Your task to perform on an android device: read, delete, or share a saved page in the chrome app Image 0: 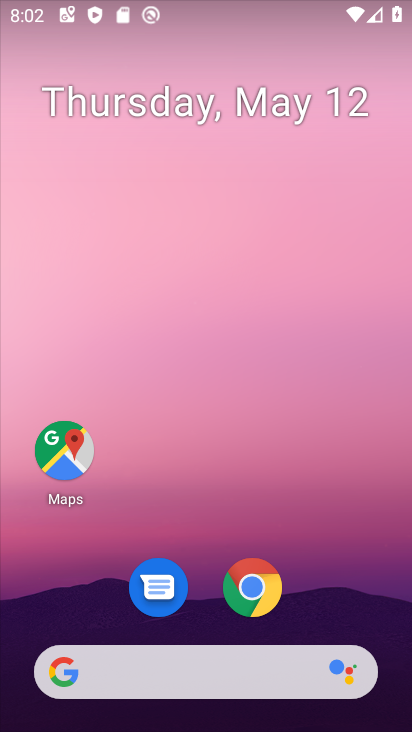
Step 0: drag from (301, 548) to (276, 180)
Your task to perform on an android device: read, delete, or share a saved page in the chrome app Image 1: 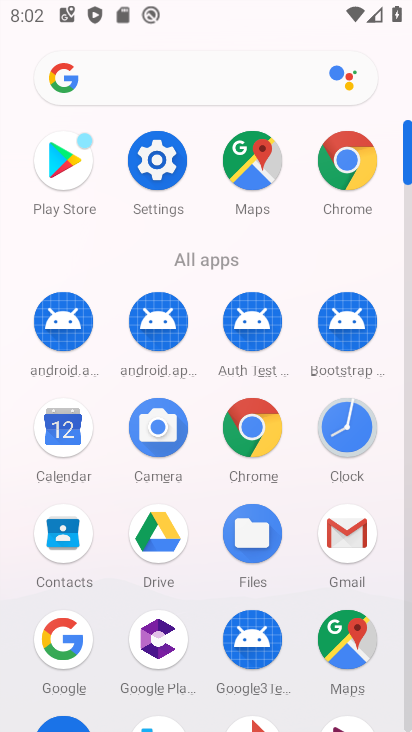
Step 1: click (256, 416)
Your task to perform on an android device: read, delete, or share a saved page in the chrome app Image 2: 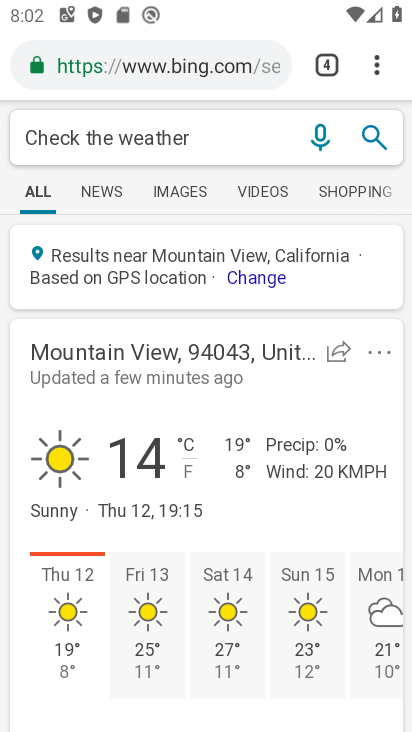
Step 2: click (384, 67)
Your task to perform on an android device: read, delete, or share a saved page in the chrome app Image 3: 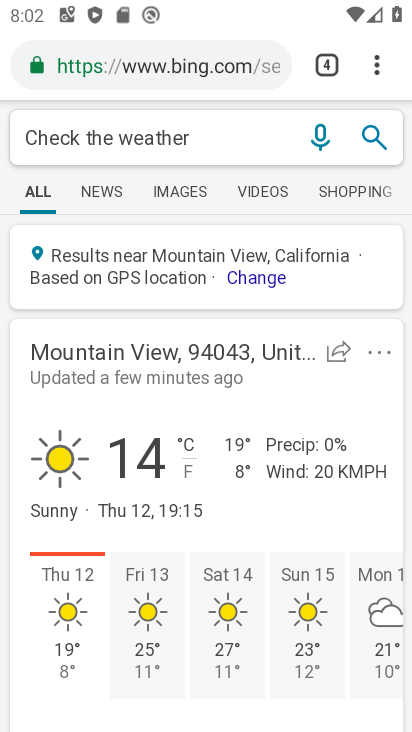
Step 3: click (363, 63)
Your task to perform on an android device: read, delete, or share a saved page in the chrome app Image 4: 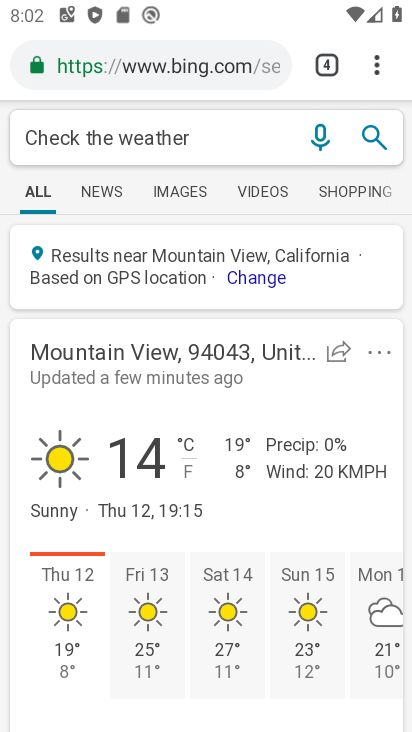
Step 4: click (372, 65)
Your task to perform on an android device: read, delete, or share a saved page in the chrome app Image 5: 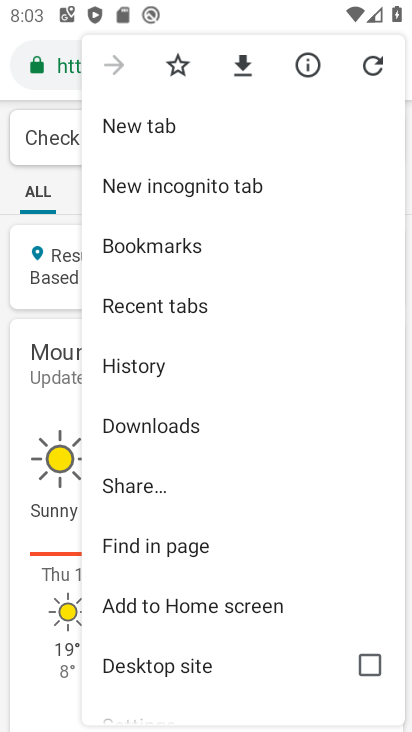
Step 5: click (183, 428)
Your task to perform on an android device: read, delete, or share a saved page in the chrome app Image 6: 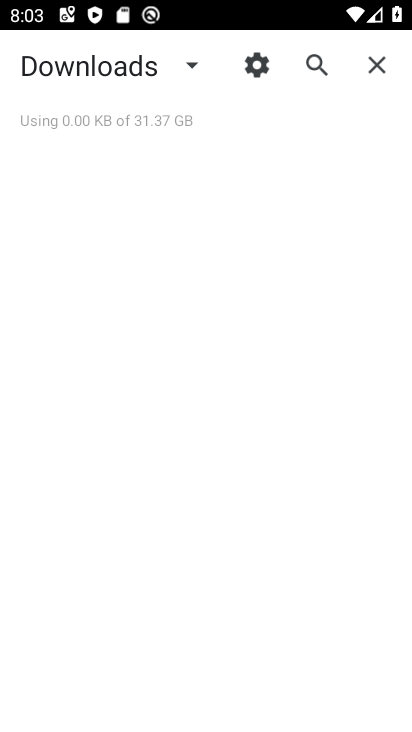
Step 6: click (187, 63)
Your task to perform on an android device: read, delete, or share a saved page in the chrome app Image 7: 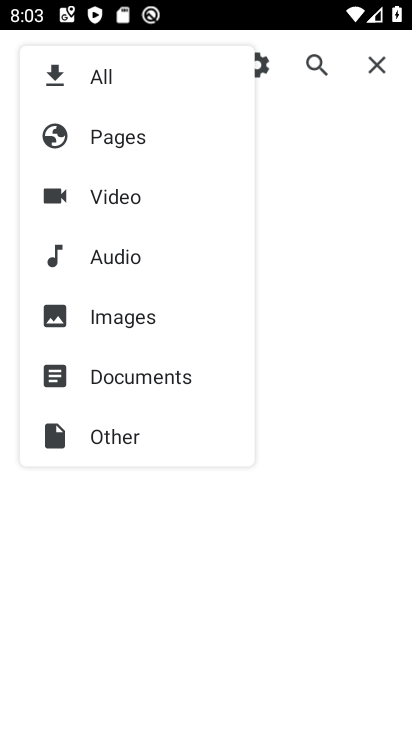
Step 7: click (113, 136)
Your task to perform on an android device: read, delete, or share a saved page in the chrome app Image 8: 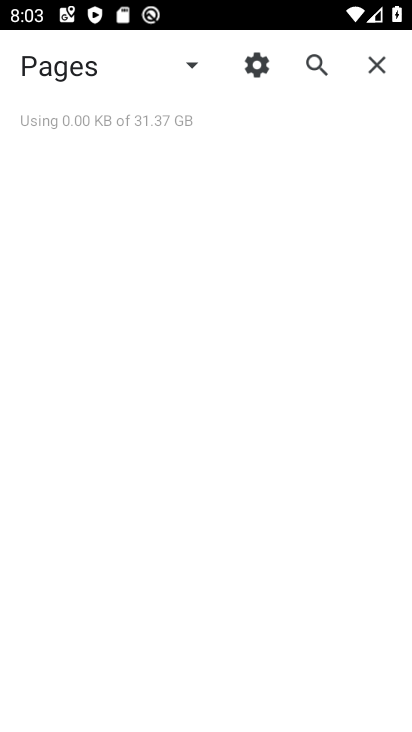
Step 8: task complete